Your task to perform on an android device: Go to CNN.com Image 0: 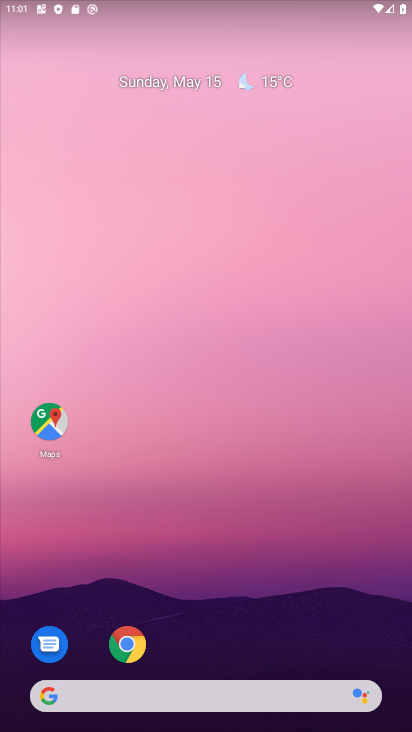
Step 0: click (128, 642)
Your task to perform on an android device: Go to CNN.com Image 1: 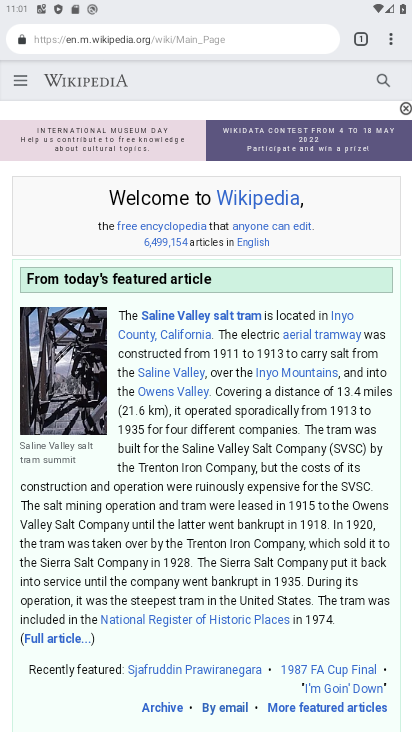
Step 1: click (363, 46)
Your task to perform on an android device: Go to CNN.com Image 2: 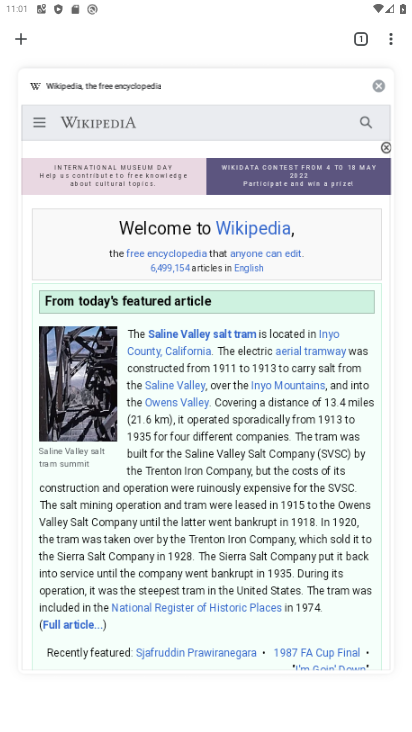
Step 2: click (226, 89)
Your task to perform on an android device: Go to CNN.com Image 3: 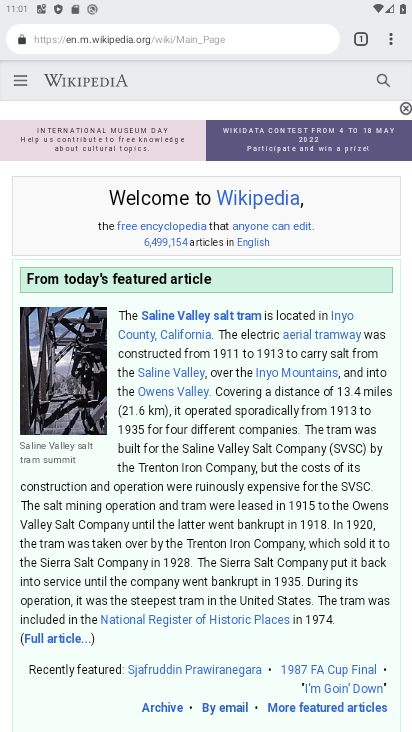
Step 3: click (240, 32)
Your task to perform on an android device: Go to CNN.com Image 4: 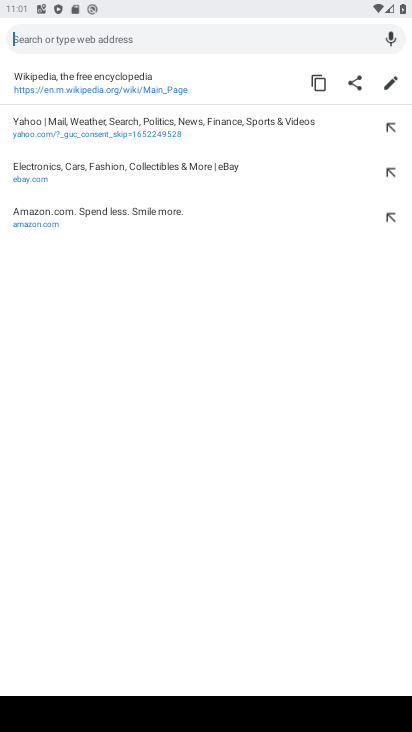
Step 4: type "cnn.com"
Your task to perform on an android device: Go to CNN.com Image 5: 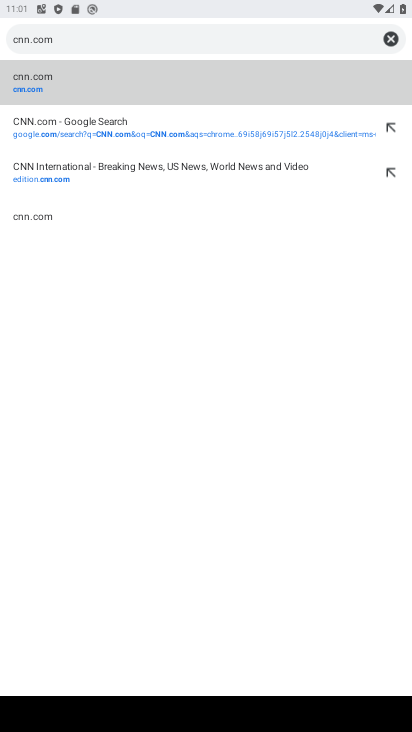
Step 5: click (147, 67)
Your task to perform on an android device: Go to CNN.com Image 6: 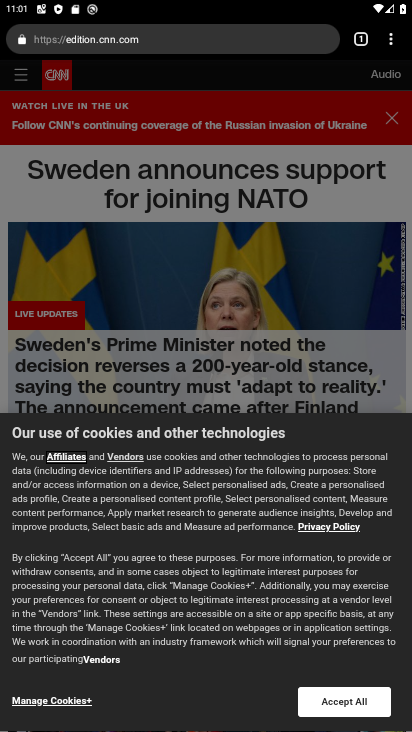
Step 6: task complete